Your task to perform on an android device: Open Amazon Image 0: 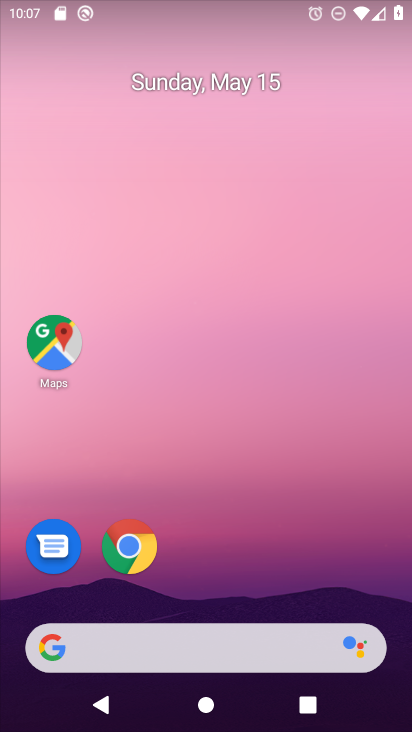
Step 0: click (131, 548)
Your task to perform on an android device: Open Amazon Image 1: 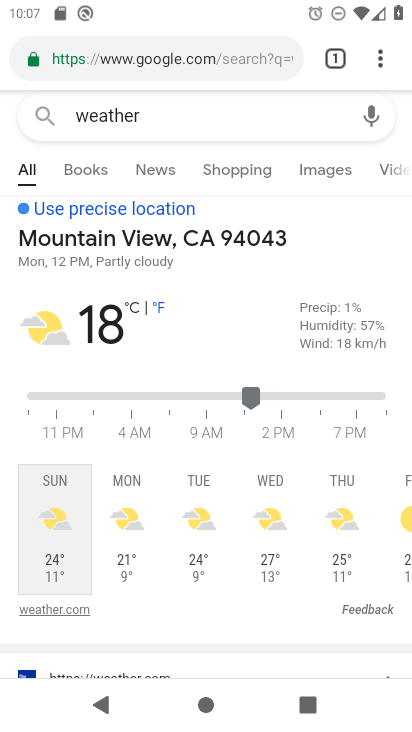
Step 1: click (195, 56)
Your task to perform on an android device: Open Amazon Image 2: 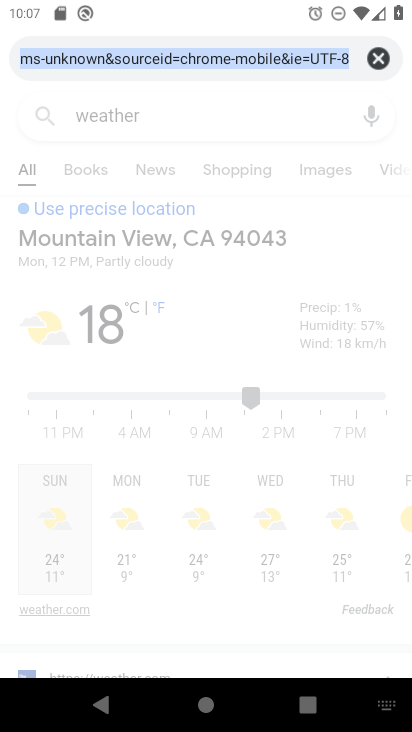
Step 2: type "amazon"
Your task to perform on an android device: Open Amazon Image 3: 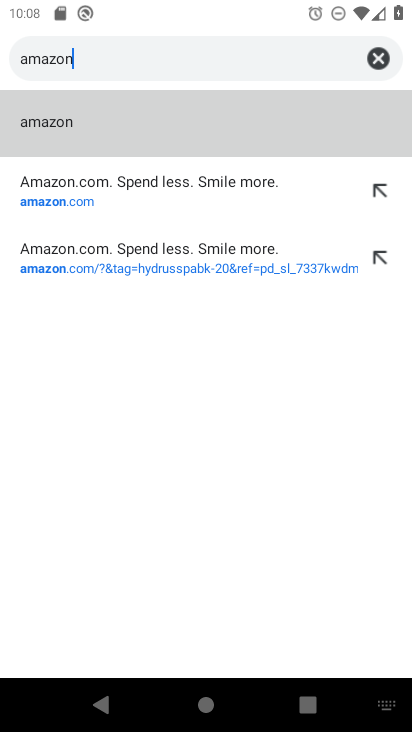
Step 3: click (45, 195)
Your task to perform on an android device: Open Amazon Image 4: 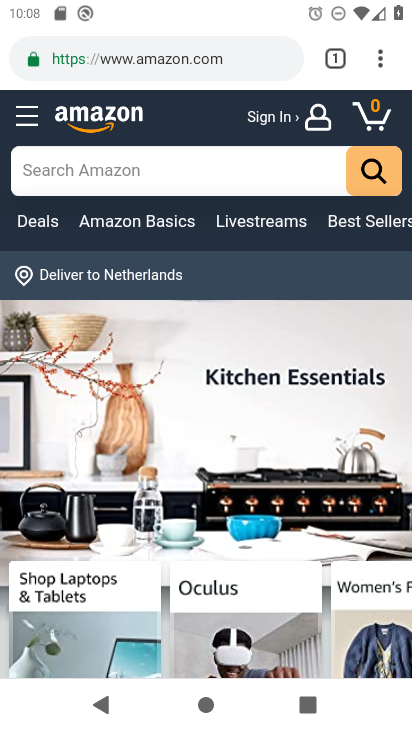
Step 4: task complete